Your task to perform on an android device: Search for pizza restaurants on Maps Image 0: 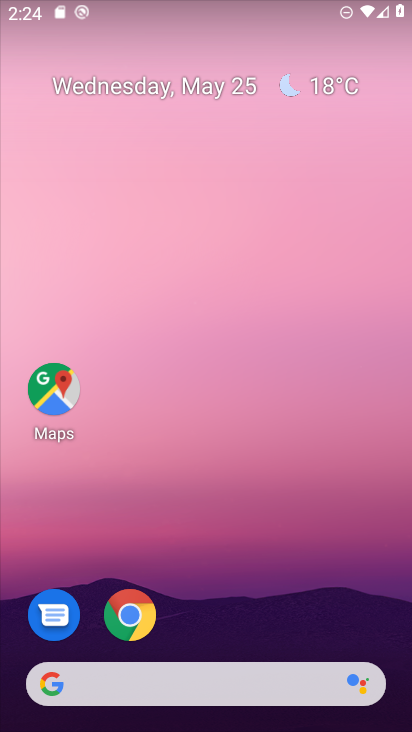
Step 0: click (51, 386)
Your task to perform on an android device: Search for pizza restaurants on Maps Image 1: 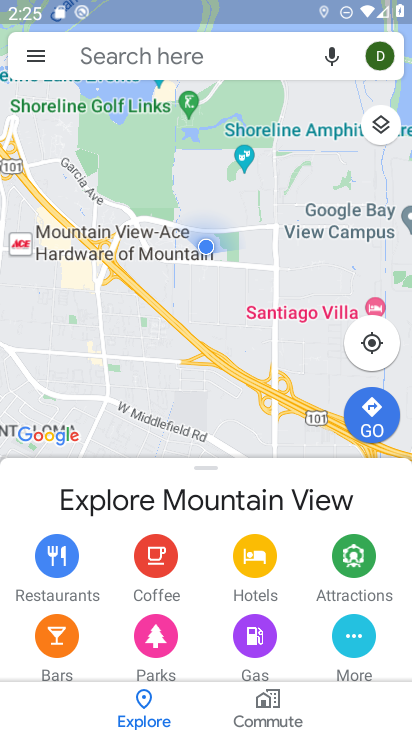
Step 1: click (188, 50)
Your task to perform on an android device: Search for pizza restaurants on Maps Image 2: 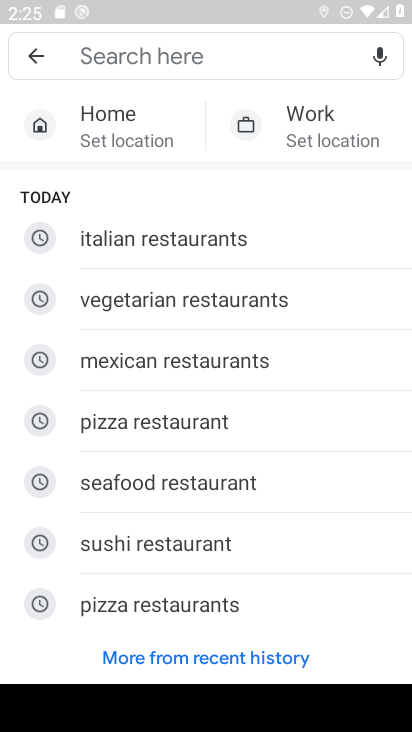
Step 2: click (193, 414)
Your task to perform on an android device: Search for pizza restaurants on Maps Image 3: 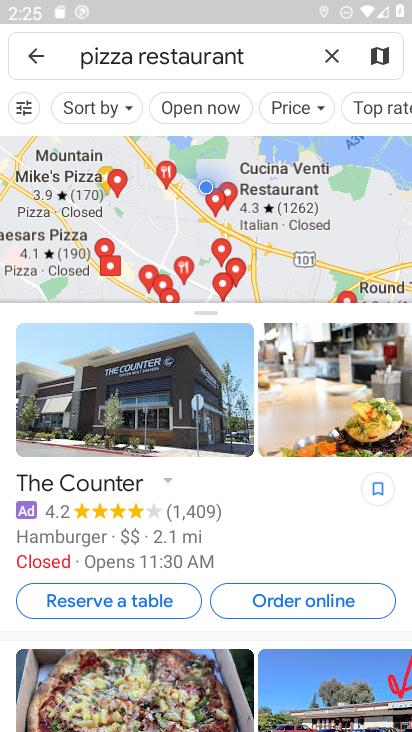
Step 3: task complete